Your task to perform on an android device: Open the calendar app, open the side menu, and click the "Day" option Image 0: 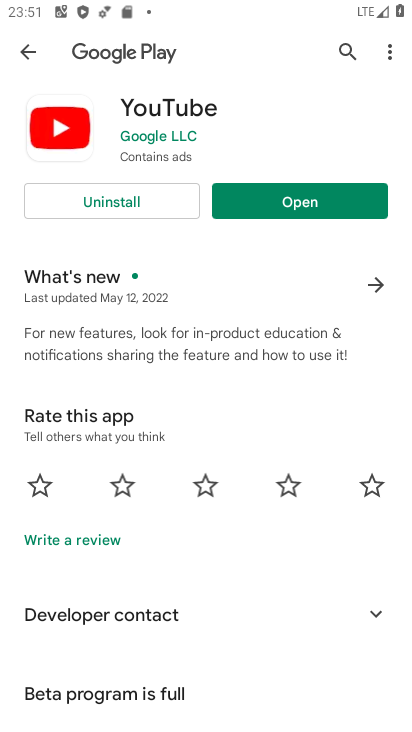
Step 0: press home button
Your task to perform on an android device: Open the calendar app, open the side menu, and click the "Day" option Image 1: 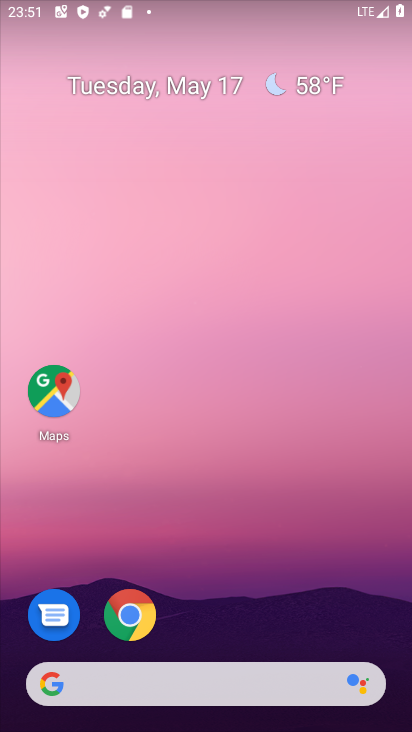
Step 1: drag from (205, 631) to (251, 222)
Your task to perform on an android device: Open the calendar app, open the side menu, and click the "Day" option Image 2: 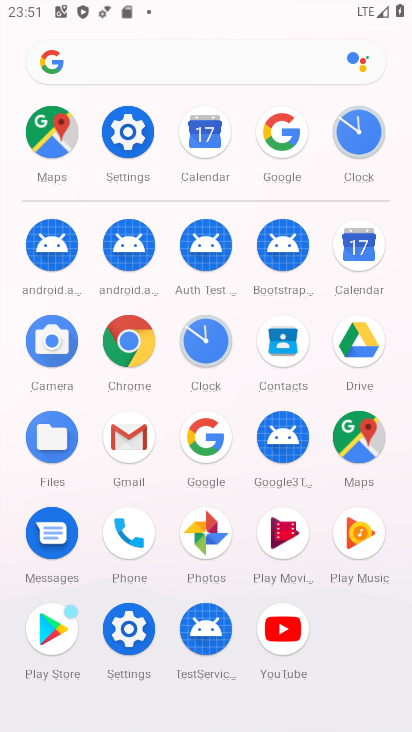
Step 2: click (341, 253)
Your task to perform on an android device: Open the calendar app, open the side menu, and click the "Day" option Image 3: 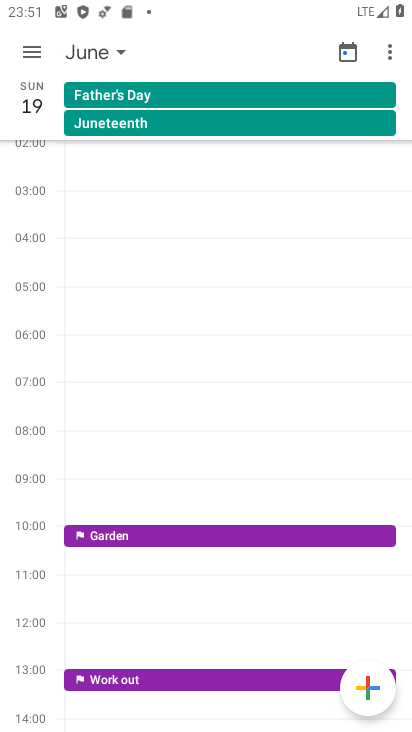
Step 3: click (31, 49)
Your task to perform on an android device: Open the calendar app, open the side menu, and click the "Day" option Image 4: 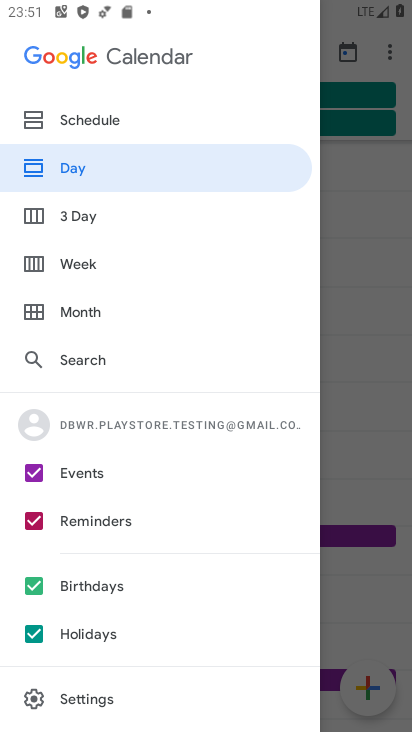
Step 4: click (143, 171)
Your task to perform on an android device: Open the calendar app, open the side menu, and click the "Day" option Image 5: 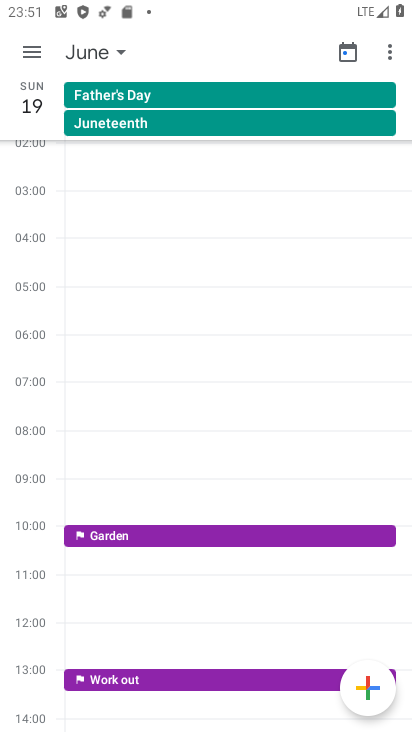
Step 5: task complete